Your task to perform on an android device: Is it going to rain today? Image 0: 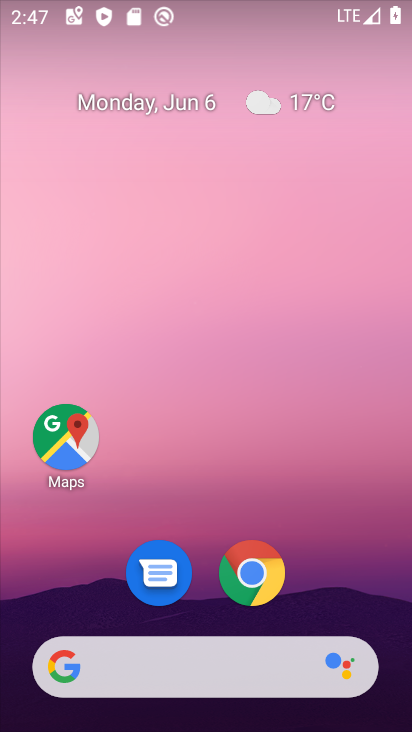
Step 0: click (288, 94)
Your task to perform on an android device: Is it going to rain today? Image 1: 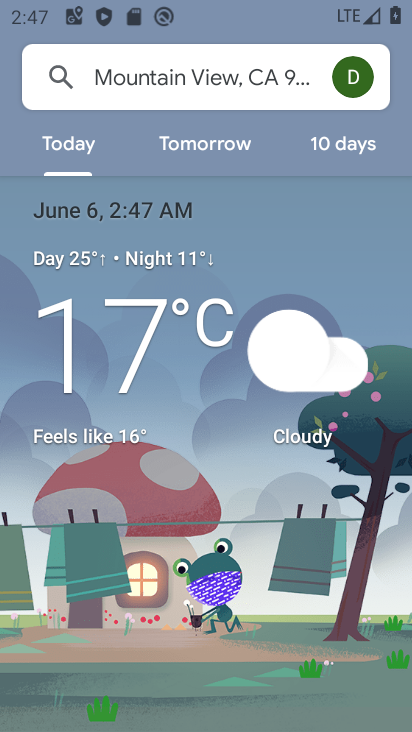
Step 1: task complete